Your task to perform on an android device: turn on translation in the chrome app Image 0: 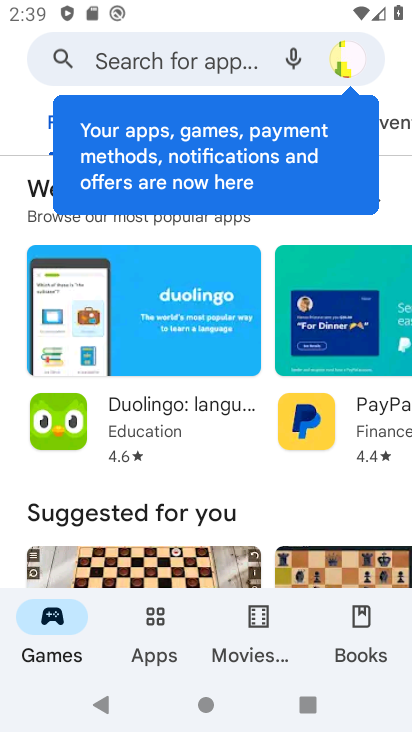
Step 0: press home button
Your task to perform on an android device: turn on translation in the chrome app Image 1: 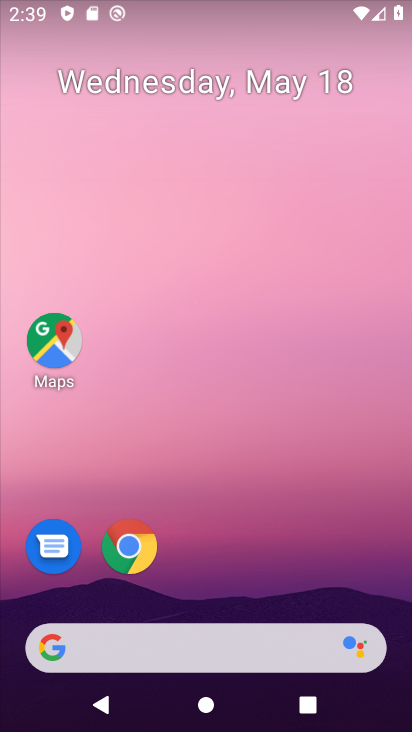
Step 1: click (125, 552)
Your task to perform on an android device: turn on translation in the chrome app Image 2: 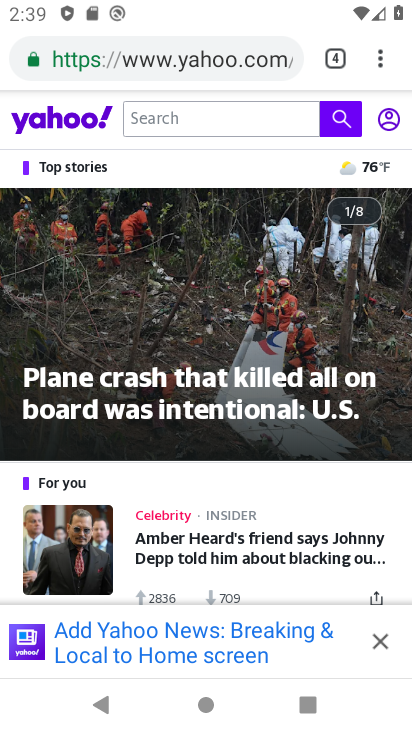
Step 2: click (378, 62)
Your task to perform on an android device: turn on translation in the chrome app Image 3: 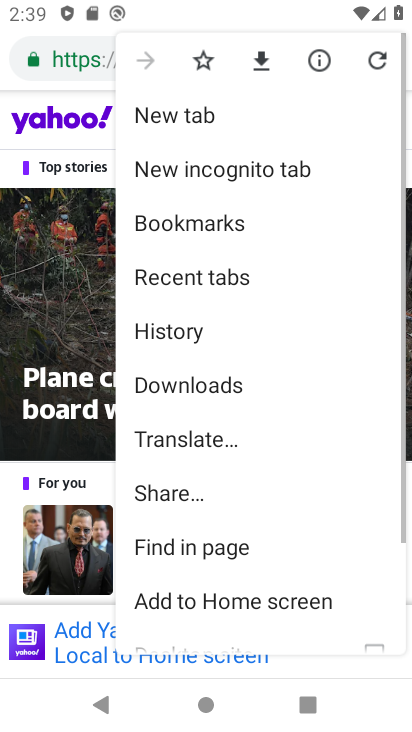
Step 3: drag from (223, 510) to (224, 204)
Your task to perform on an android device: turn on translation in the chrome app Image 4: 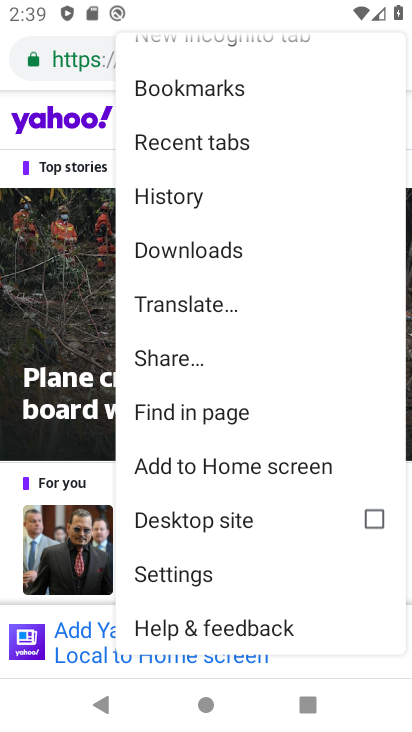
Step 4: click (188, 577)
Your task to perform on an android device: turn on translation in the chrome app Image 5: 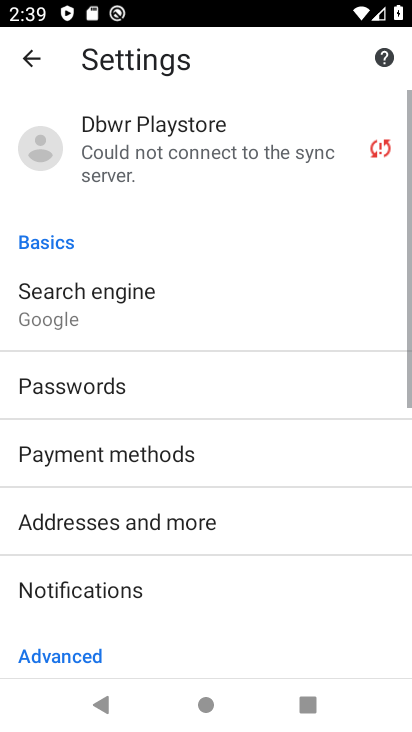
Step 5: drag from (162, 615) to (175, 188)
Your task to perform on an android device: turn on translation in the chrome app Image 6: 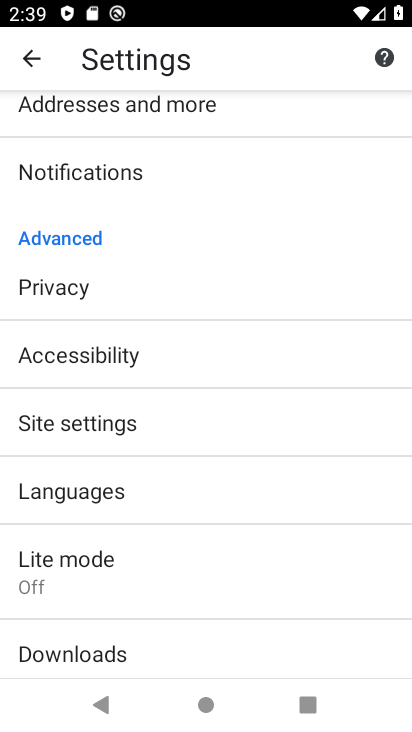
Step 6: click (103, 493)
Your task to perform on an android device: turn on translation in the chrome app Image 7: 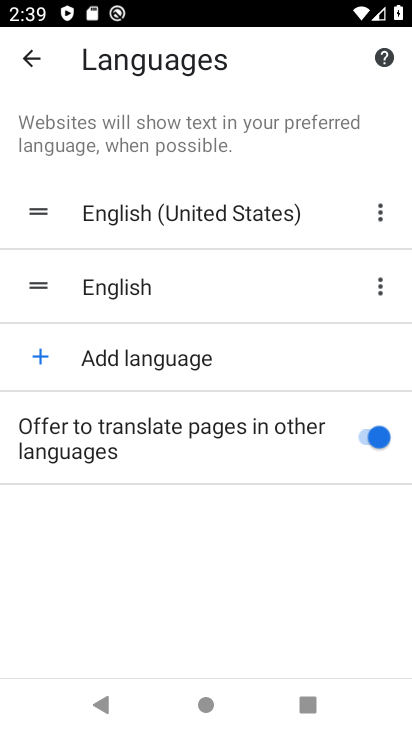
Step 7: task complete